Your task to perform on an android device: Show me popular games on the Play Store Image 0: 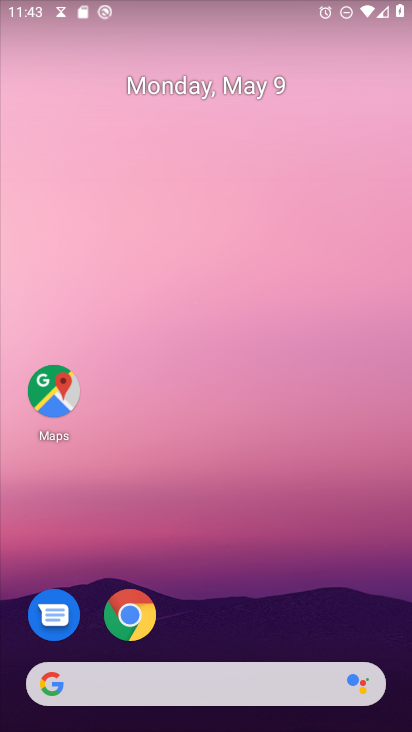
Step 0: drag from (211, 724) to (179, 278)
Your task to perform on an android device: Show me popular games on the Play Store Image 1: 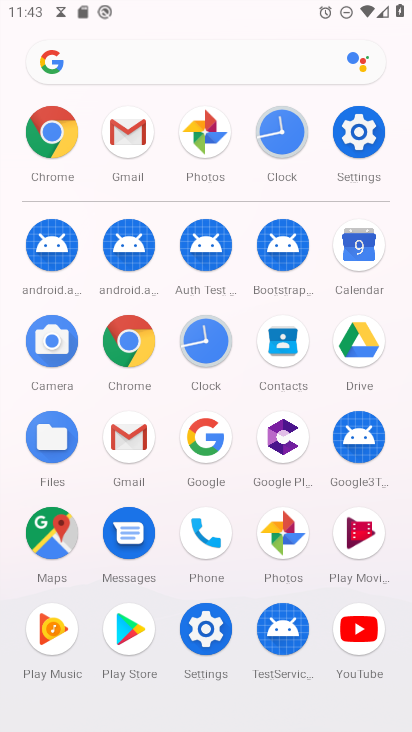
Step 1: click (126, 631)
Your task to perform on an android device: Show me popular games on the Play Store Image 2: 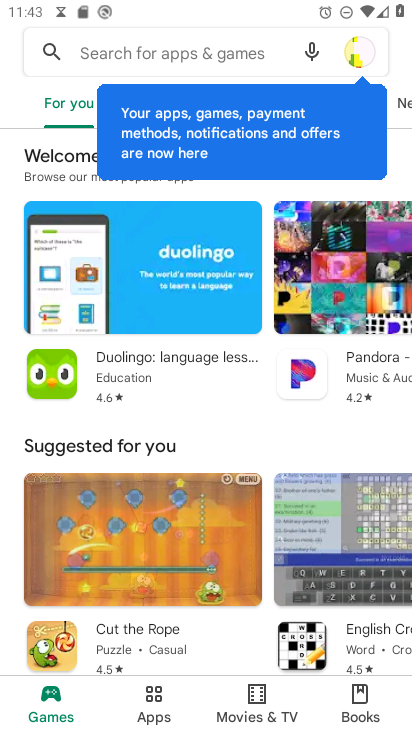
Step 2: drag from (222, 404) to (232, 260)
Your task to perform on an android device: Show me popular games on the Play Store Image 3: 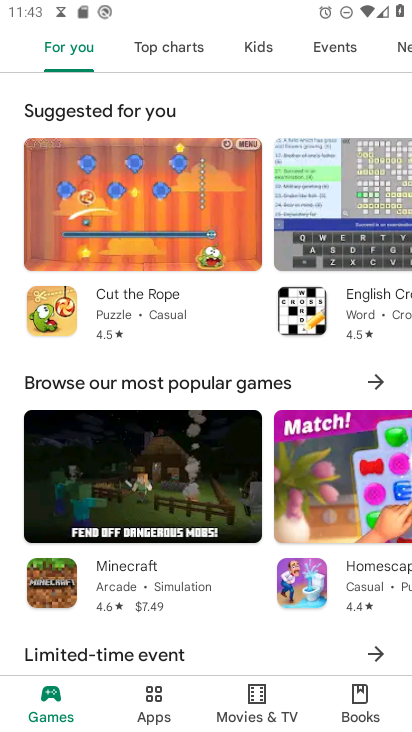
Step 3: click (374, 381)
Your task to perform on an android device: Show me popular games on the Play Store Image 4: 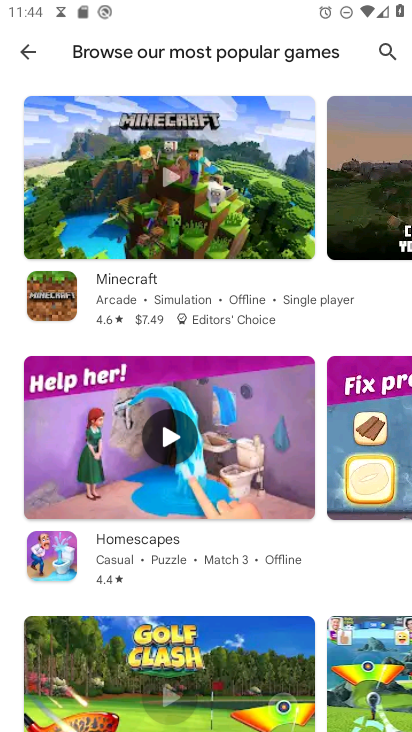
Step 4: task complete